Your task to perform on an android device: install app "Facebook" Image 0: 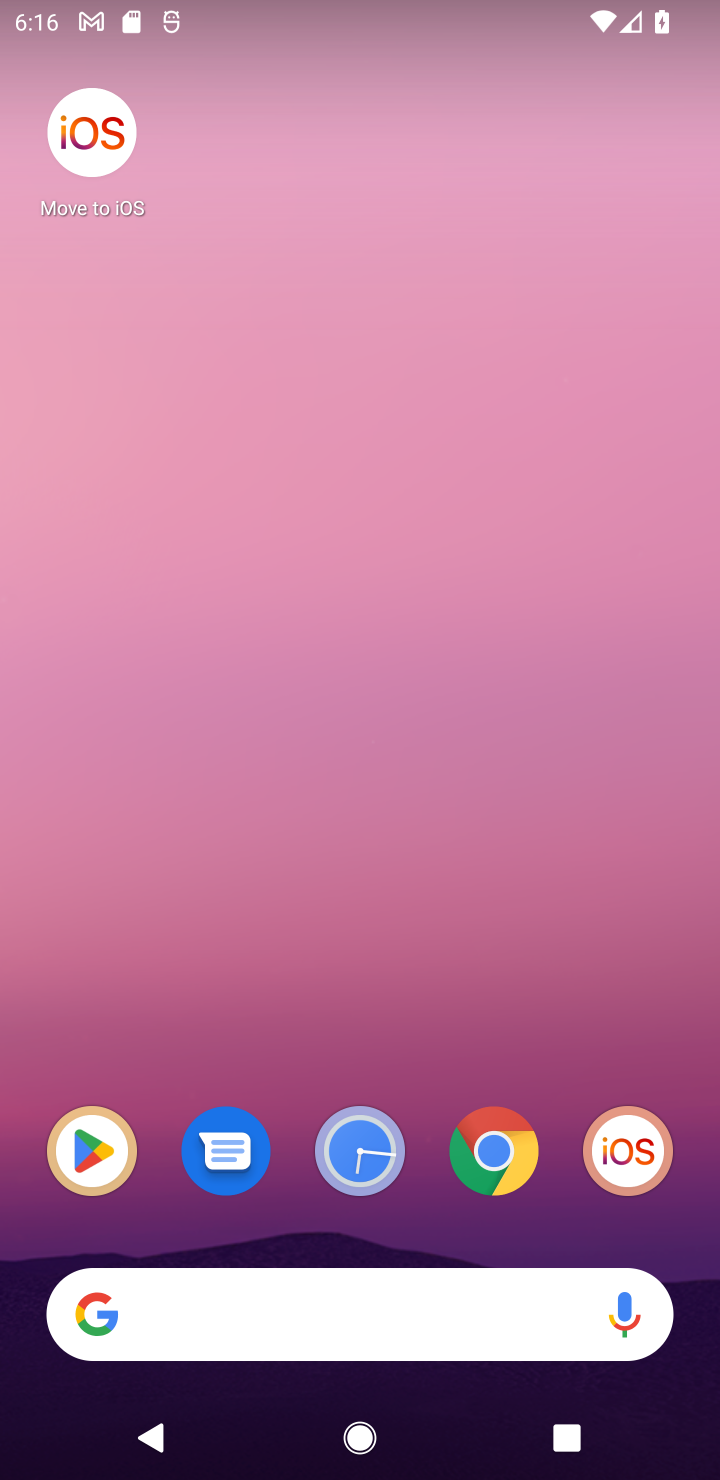
Step 0: press back button
Your task to perform on an android device: install app "Facebook" Image 1: 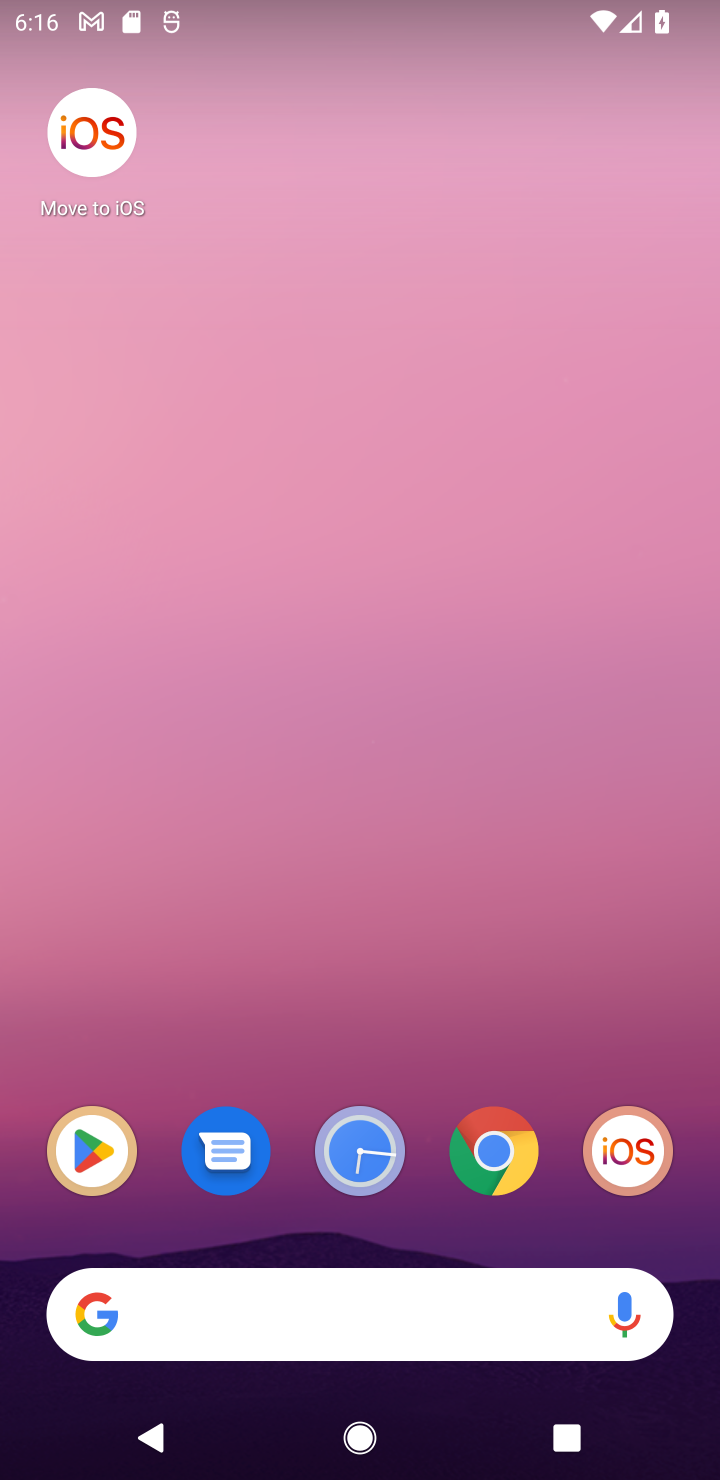
Step 1: click (120, 1166)
Your task to perform on an android device: install app "Facebook" Image 2: 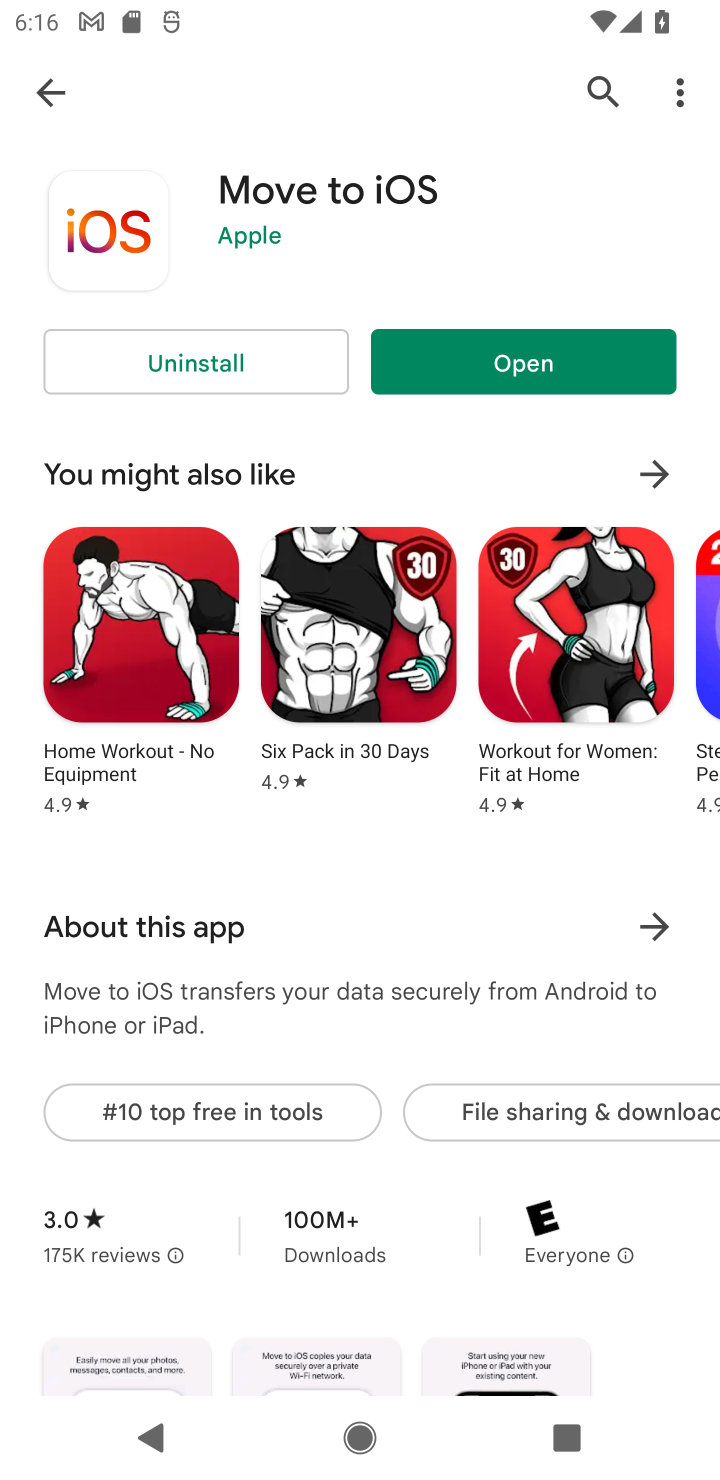
Step 2: click (600, 101)
Your task to perform on an android device: install app "Facebook" Image 3: 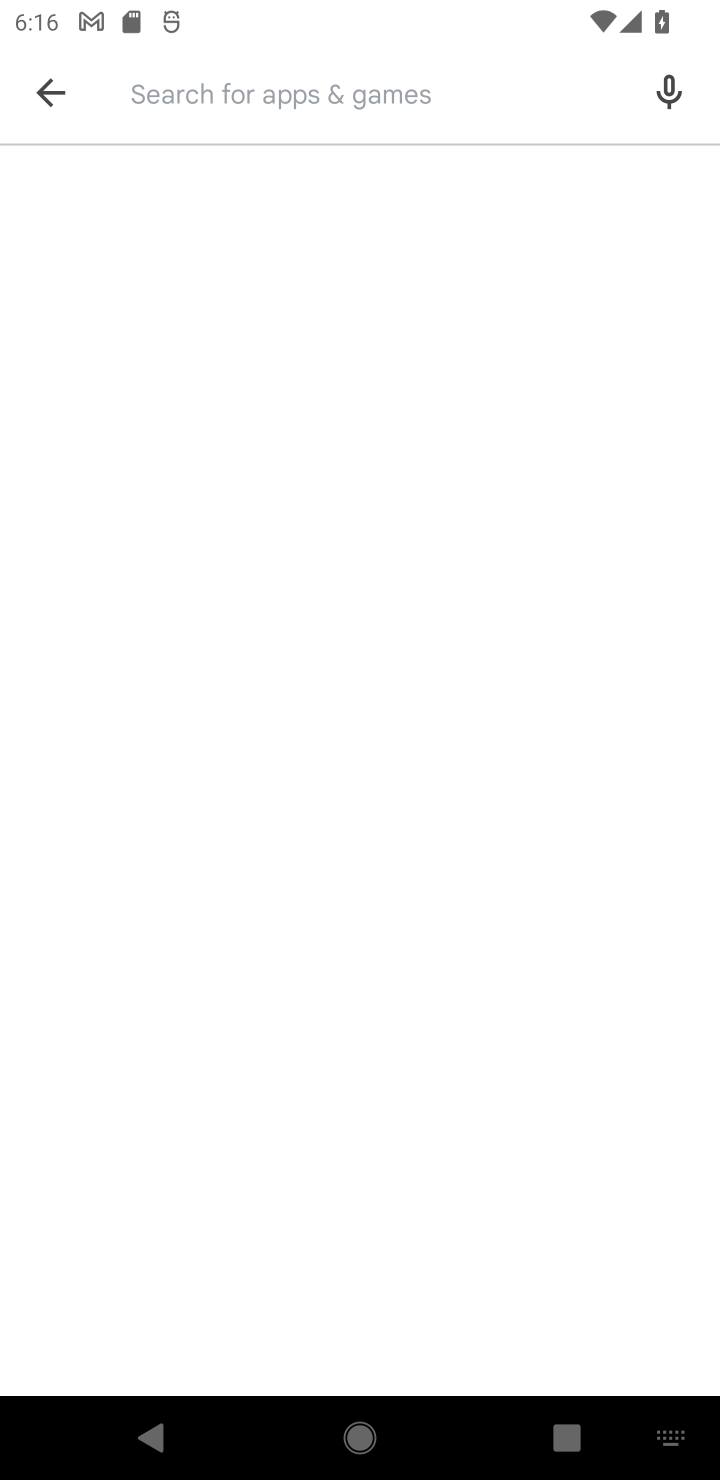
Step 3: type "facebook"
Your task to perform on an android device: install app "Facebook" Image 4: 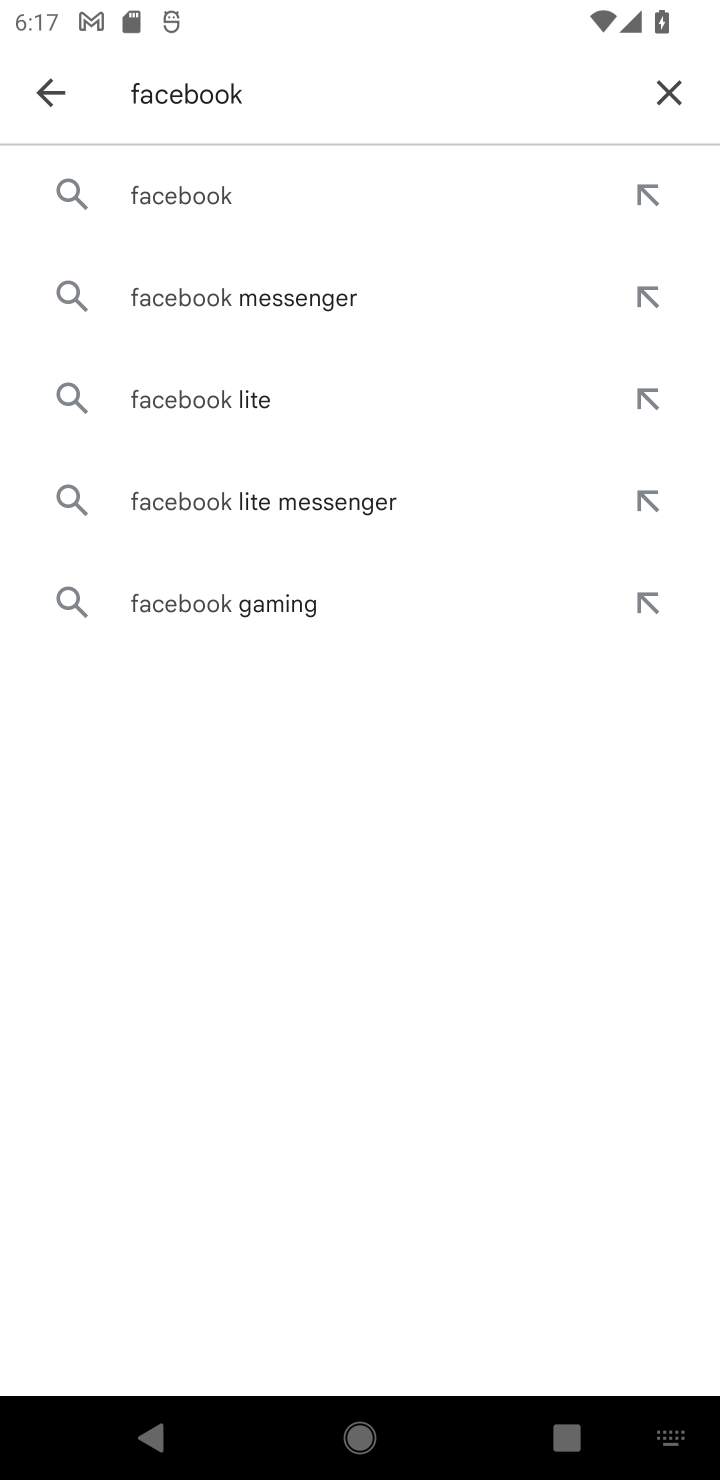
Step 4: click (188, 193)
Your task to perform on an android device: install app "Facebook" Image 5: 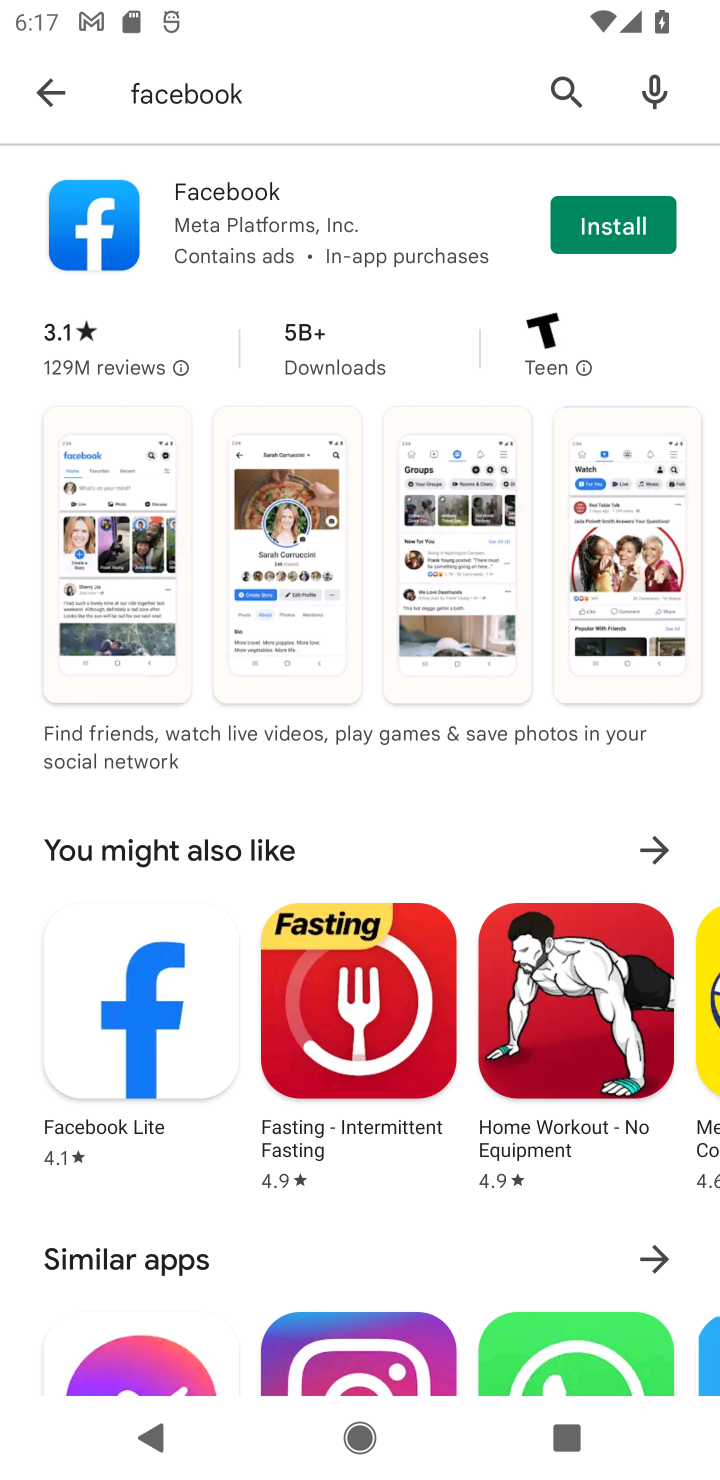
Step 5: click (582, 230)
Your task to perform on an android device: install app "Facebook" Image 6: 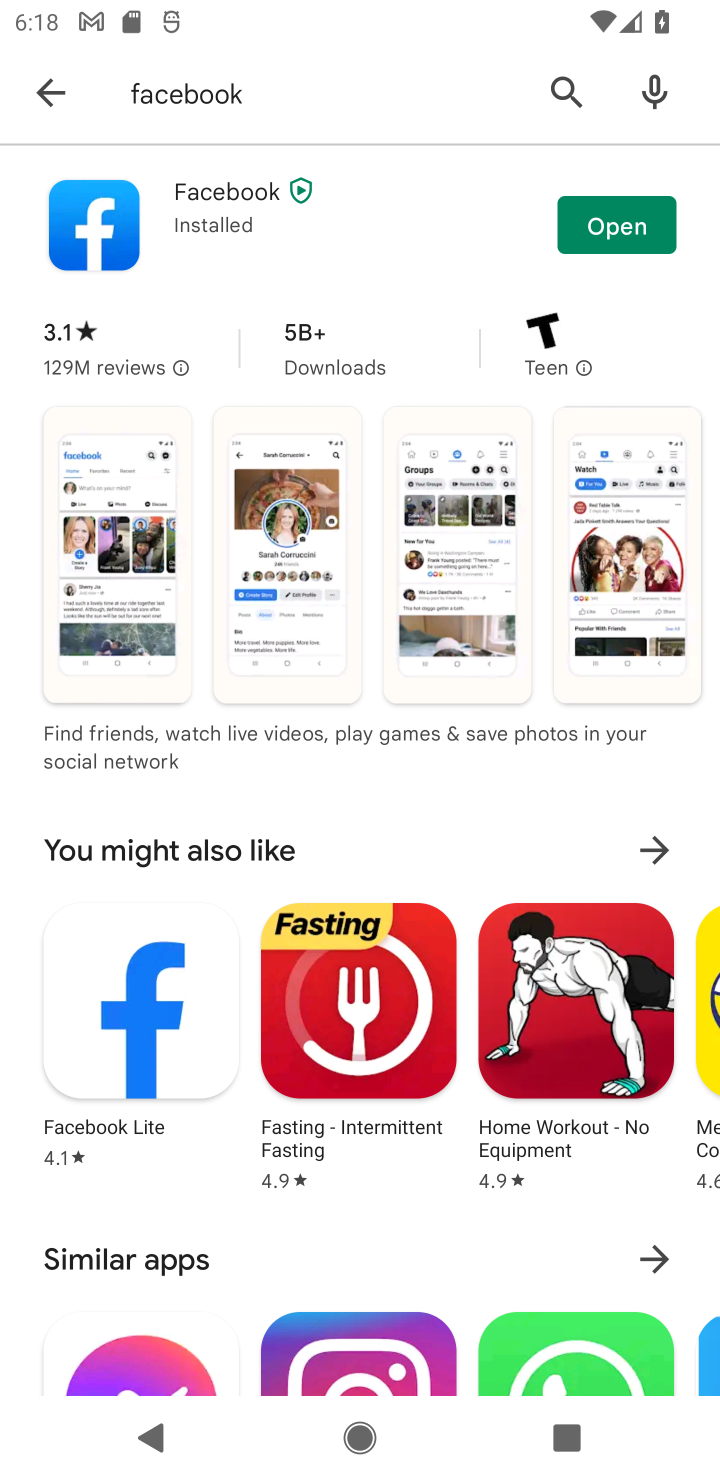
Step 6: task complete